Your task to perform on an android device: Go to Reddit.com Image 0: 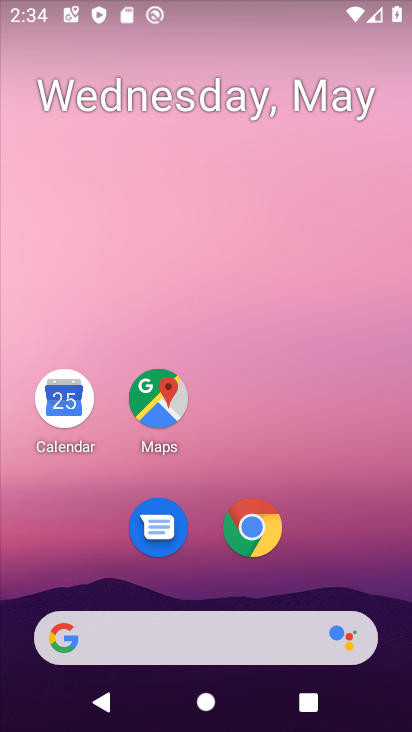
Step 0: drag from (294, 549) to (162, 50)
Your task to perform on an android device: Go to Reddit.com Image 1: 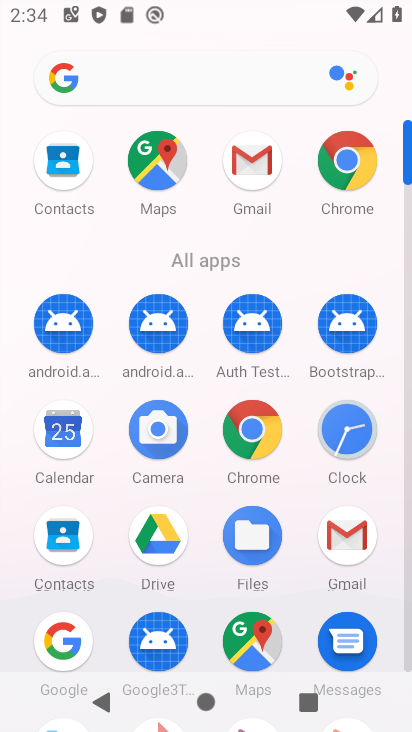
Step 1: click (346, 151)
Your task to perform on an android device: Go to Reddit.com Image 2: 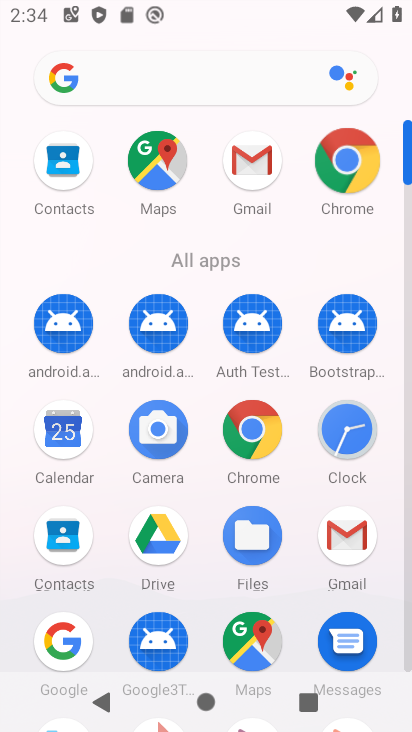
Step 2: click (346, 151)
Your task to perform on an android device: Go to Reddit.com Image 3: 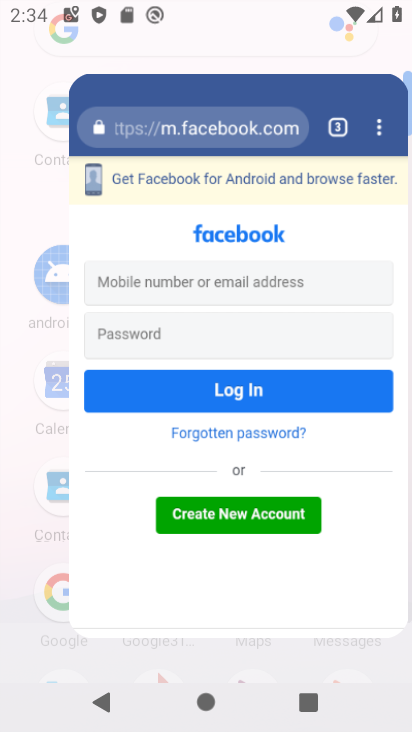
Step 3: click (346, 151)
Your task to perform on an android device: Go to Reddit.com Image 4: 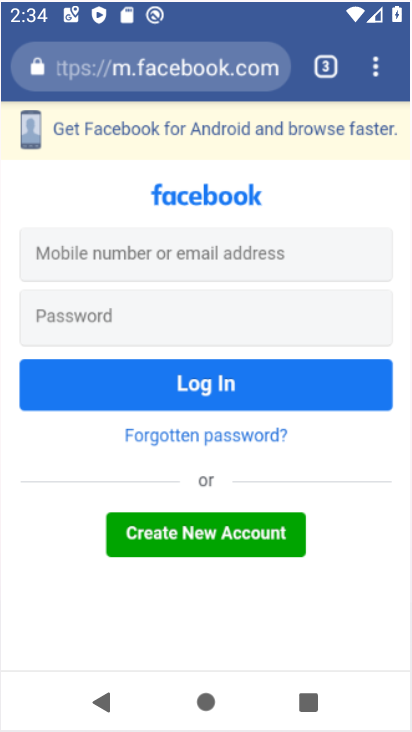
Step 4: click (346, 151)
Your task to perform on an android device: Go to Reddit.com Image 5: 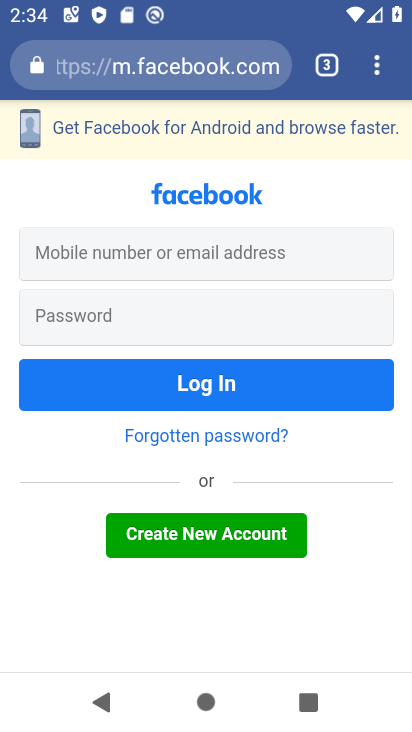
Step 5: click (377, 68)
Your task to perform on an android device: Go to Reddit.com Image 6: 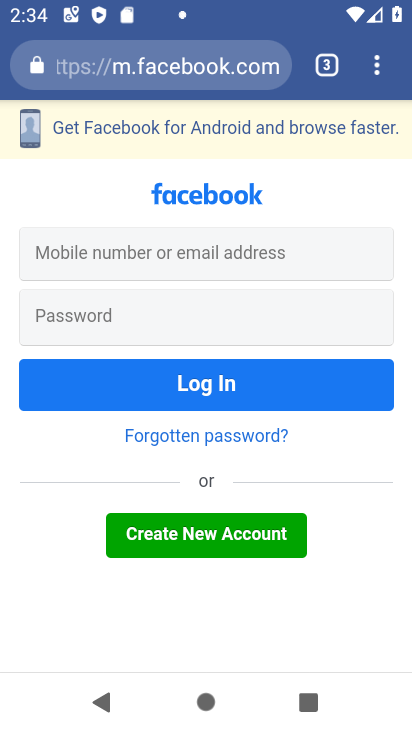
Step 6: press back button
Your task to perform on an android device: Go to Reddit.com Image 7: 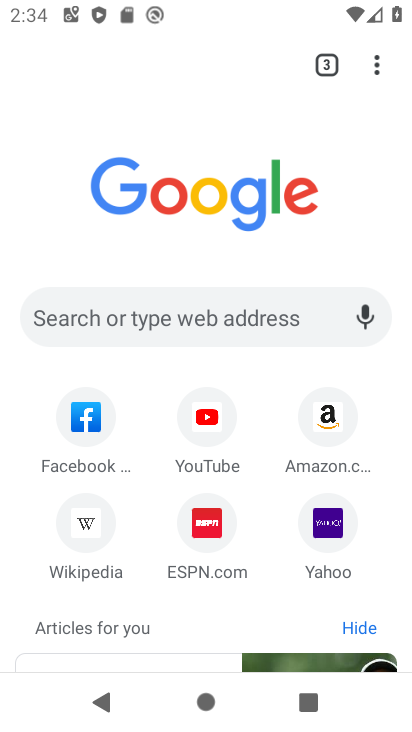
Step 7: click (49, 320)
Your task to perform on an android device: Go to Reddit.com Image 8: 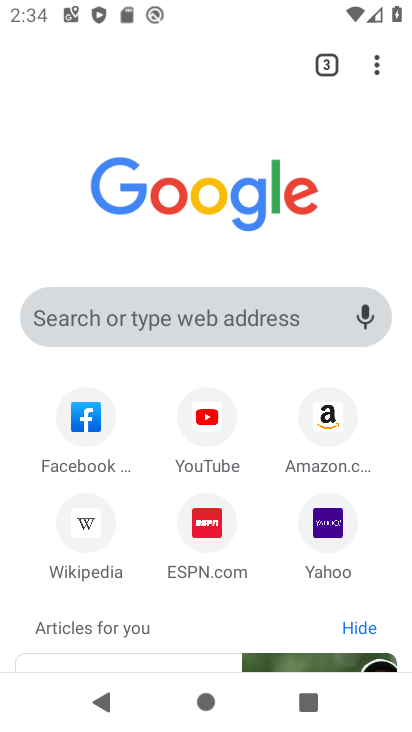
Step 8: click (49, 320)
Your task to perform on an android device: Go to Reddit.com Image 9: 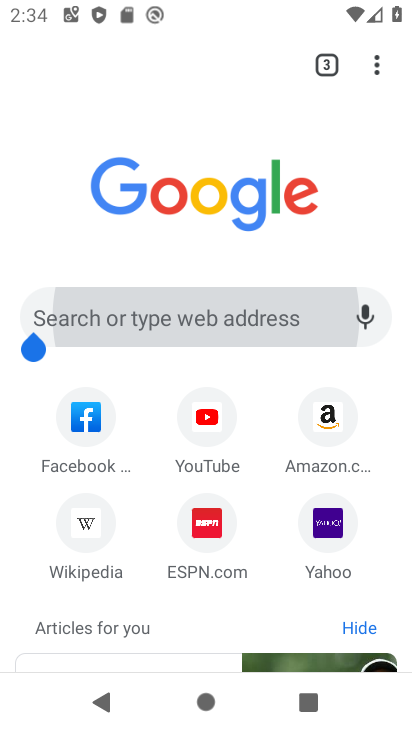
Step 9: click (55, 317)
Your task to perform on an android device: Go to Reddit.com Image 10: 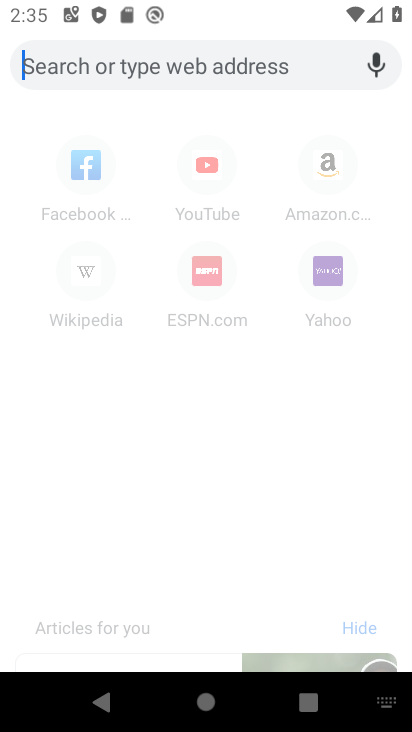
Step 10: type "reddit.com"
Your task to perform on an android device: Go to Reddit.com Image 11: 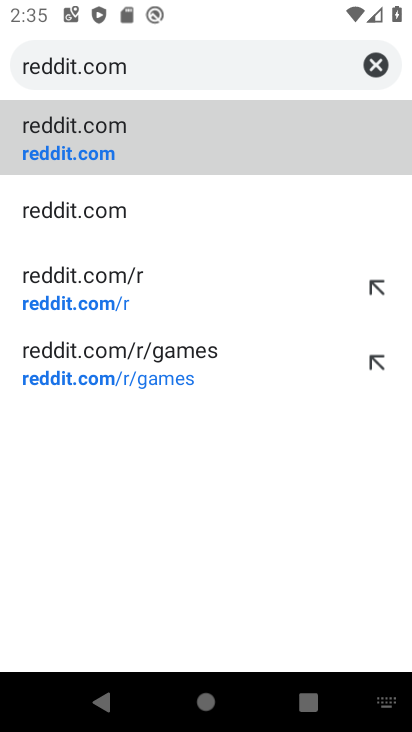
Step 11: click (62, 145)
Your task to perform on an android device: Go to Reddit.com Image 12: 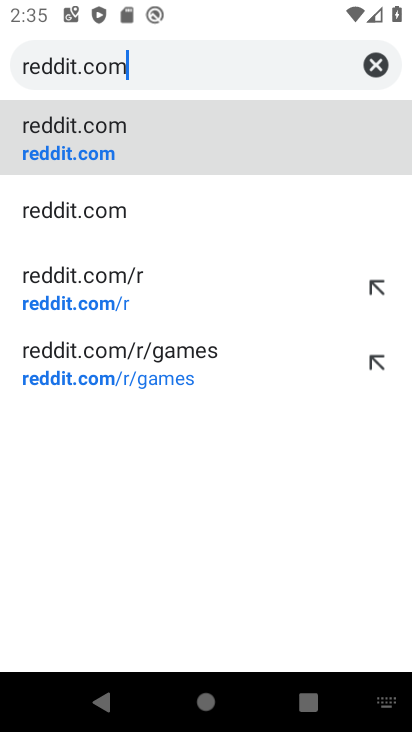
Step 12: click (66, 145)
Your task to perform on an android device: Go to Reddit.com Image 13: 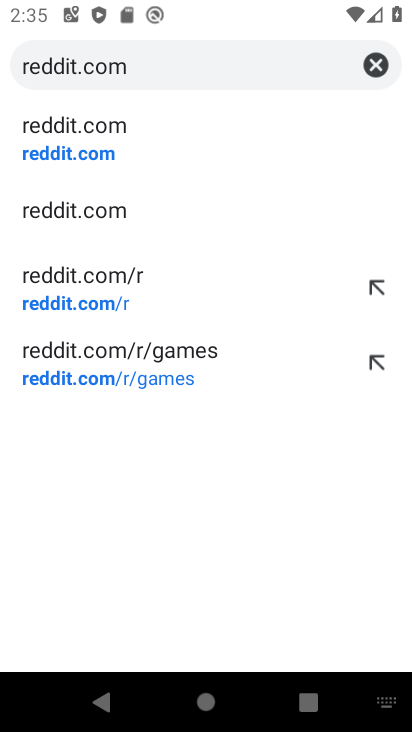
Step 13: click (67, 148)
Your task to perform on an android device: Go to Reddit.com Image 14: 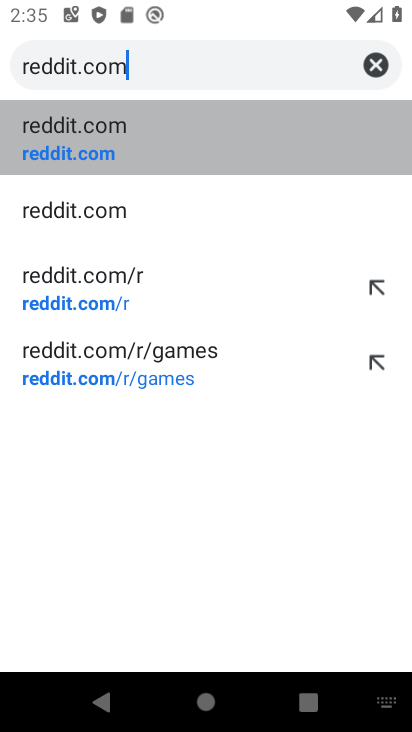
Step 14: click (59, 149)
Your task to perform on an android device: Go to Reddit.com Image 15: 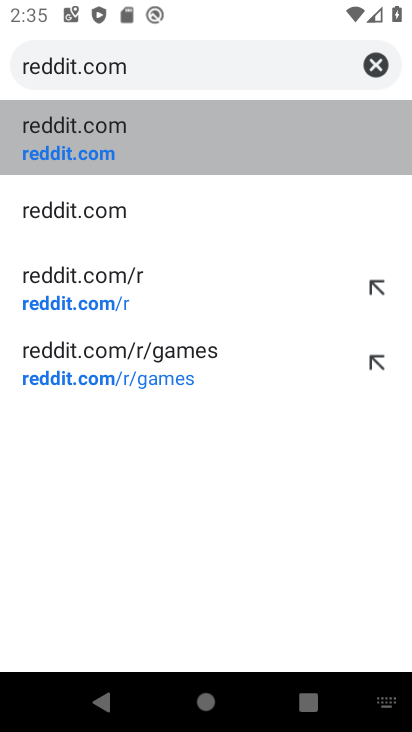
Step 15: click (59, 149)
Your task to perform on an android device: Go to Reddit.com Image 16: 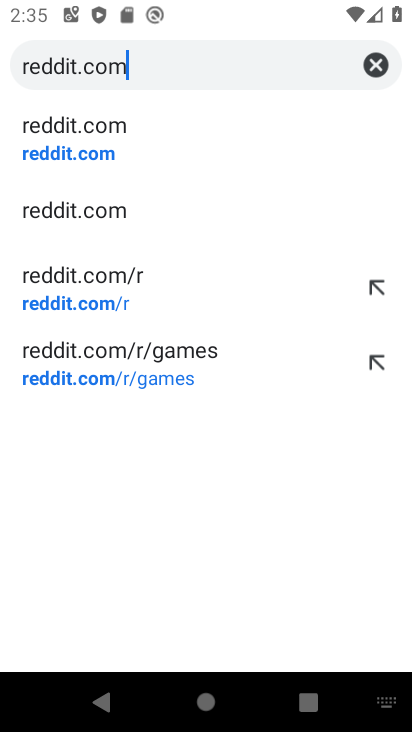
Step 16: click (59, 149)
Your task to perform on an android device: Go to Reddit.com Image 17: 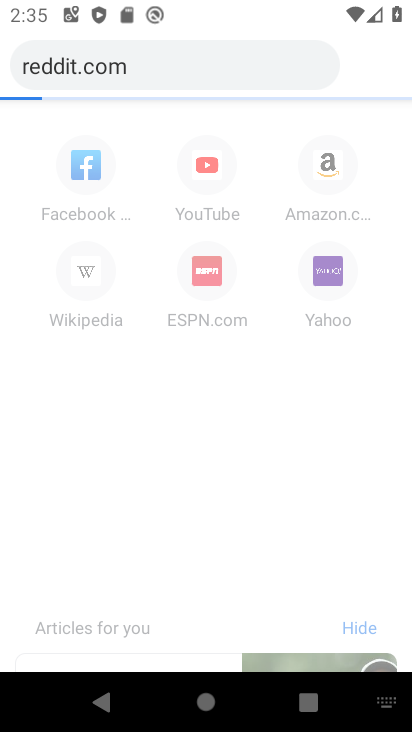
Step 17: click (60, 149)
Your task to perform on an android device: Go to Reddit.com Image 18: 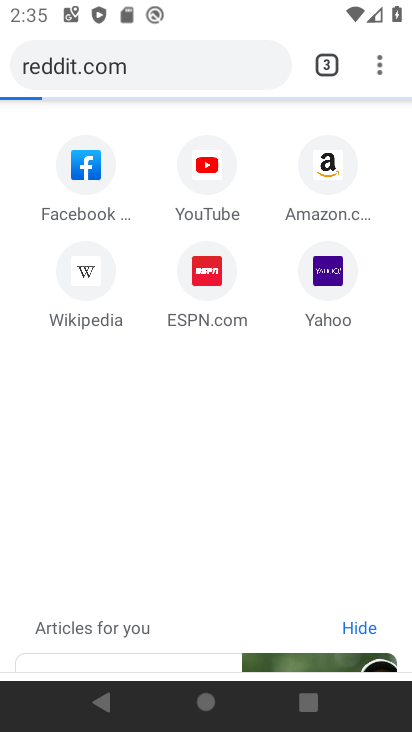
Step 18: click (61, 149)
Your task to perform on an android device: Go to Reddit.com Image 19: 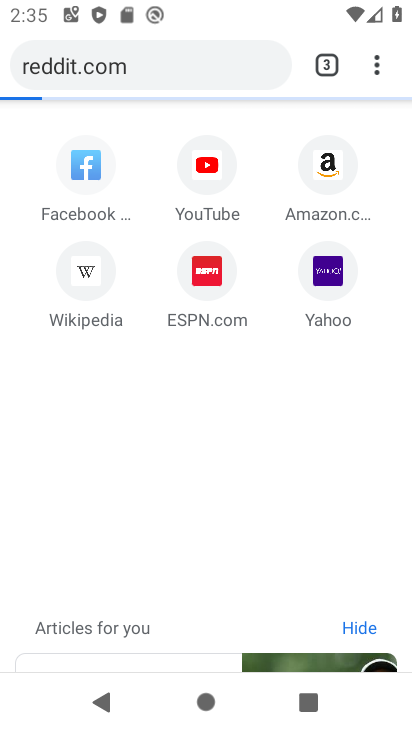
Step 19: click (61, 149)
Your task to perform on an android device: Go to Reddit.com Image 20: 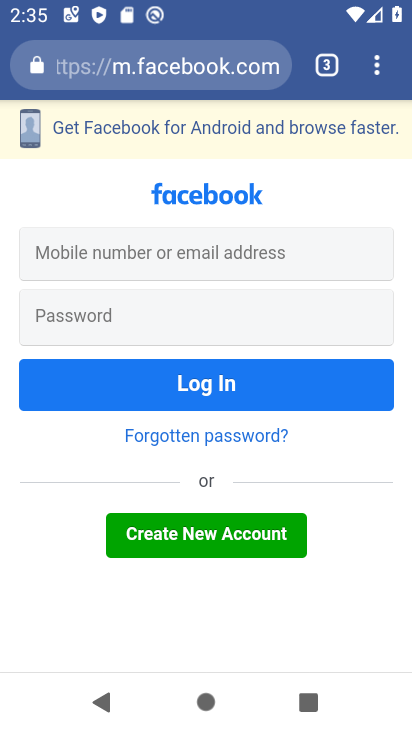
Step 20: task complete